Your task to perform on an android device: When is my next meeting? Image 0: 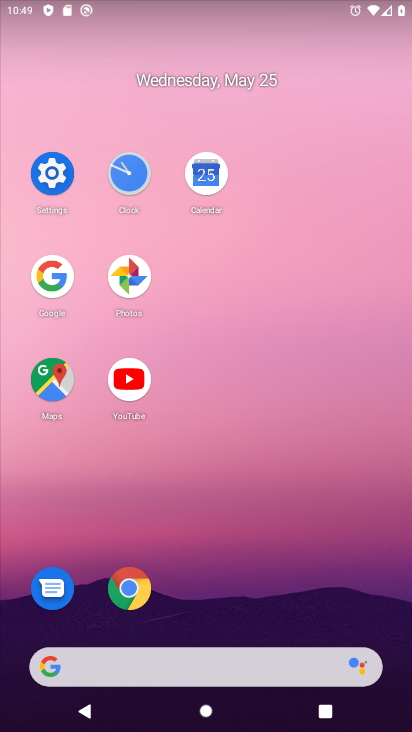
Step 0: click (215, 173)
Your task to perform on an android device: When is my next meeting? Image 1: 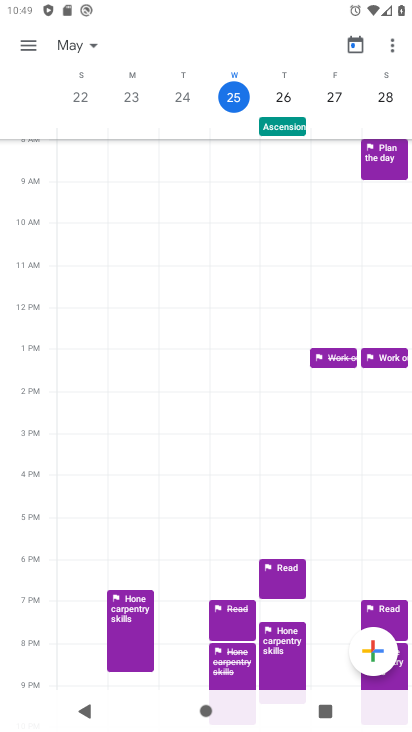
Step 1: click (338, 103)
Your task to perform on an android device: When is my next meeting? Image 2: 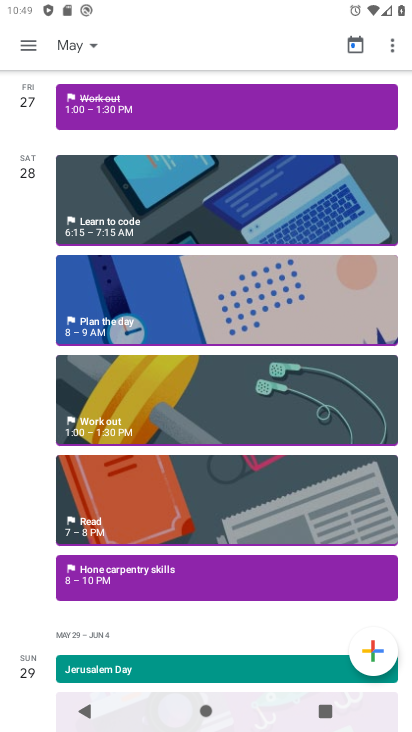
Step 2: task complete